Your task to perform on an android device: Go to eBay Image 0: 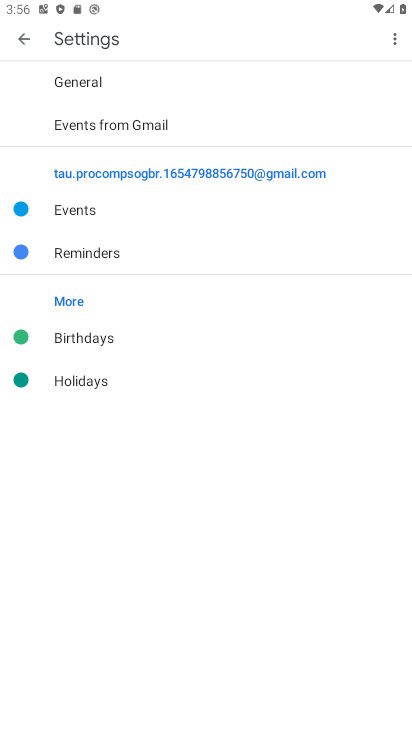
Step 0: press home button
Your task to perform on an android device: Go to eBay Image 1: 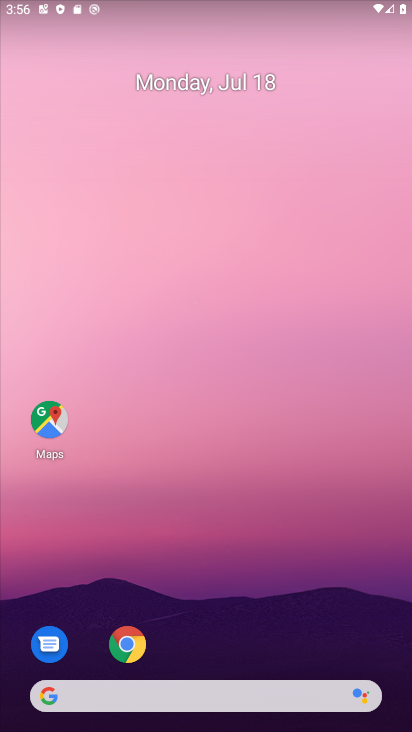
Step 1: click (123, 641)
Your task to perform on an android device: Go to eBay Image 2: 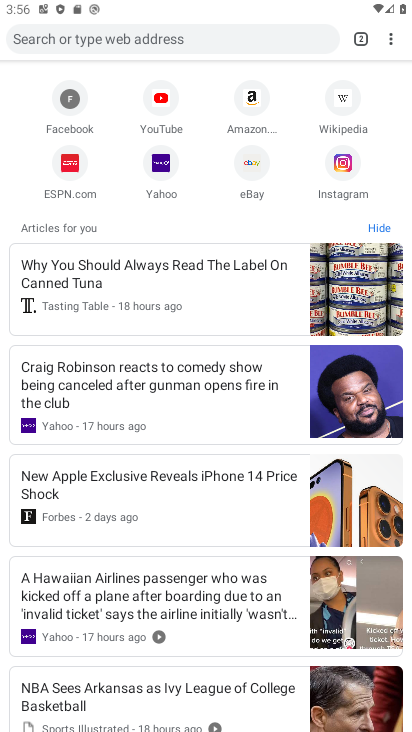
Step 2: click (115, 36)
Your task to perform on an android device: Go to eBay Image 3: 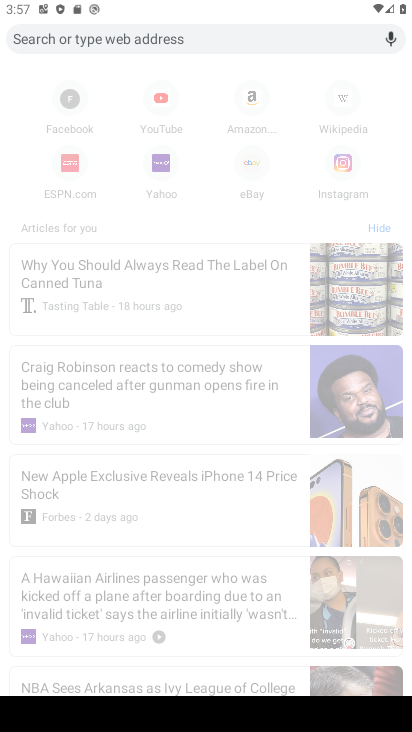
Step 3: type "eBay"
Your task to perform on an android device: Go to eBay Image 4: 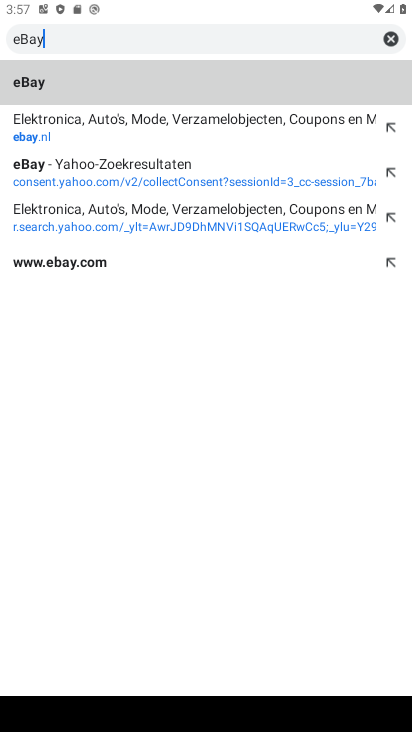
Step 4: click (34, 88)
Your task to perform on an android device: Go to eBay Image 5: 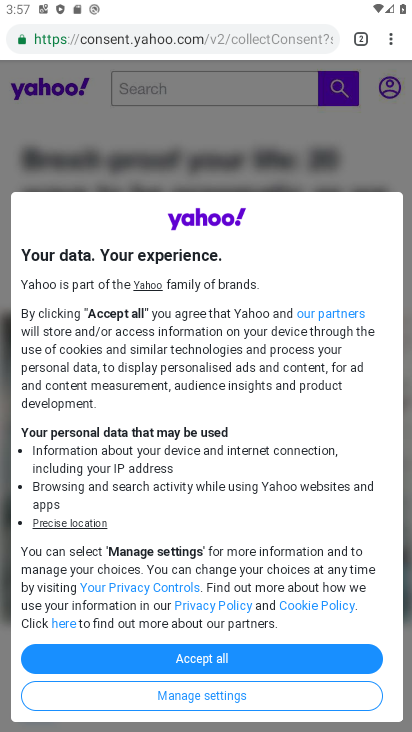
Step 5: click (201, 655)
Your task to perform on an android device: Go to eBay Image 6: 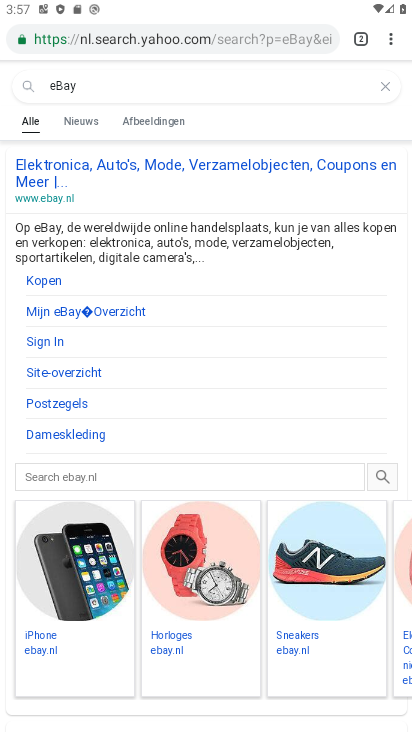
Step 6: click (52, 164)
Your task to perform on an android device: Go to eBay Image 7: 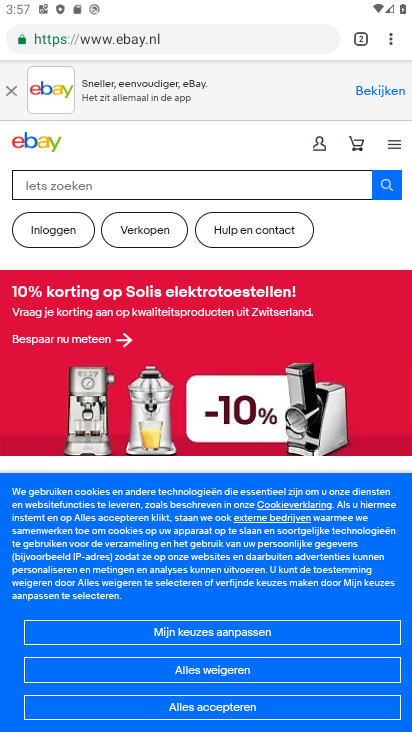
Step 7: click (189, 674)
Your task to perform on an android device: Go to eBay Image 8: 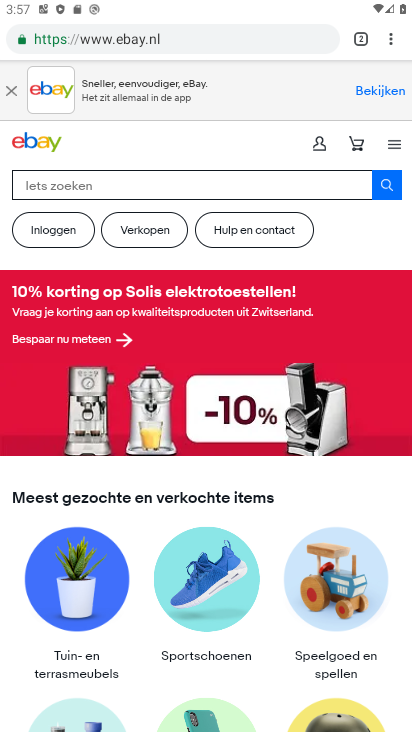
Step 8: task complete